Your task to perform on an android device: create a new album in the google photos Image 0: 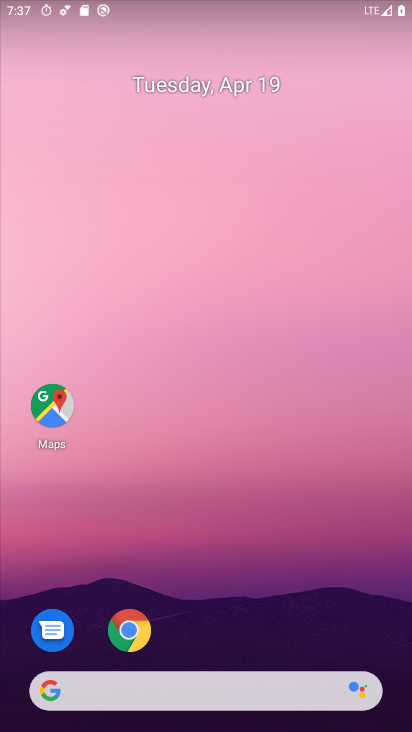
Step 0: drag from (187, 652) to (201, 96)
Your task to perform on an android device: create a new album in the google photos Image 1: 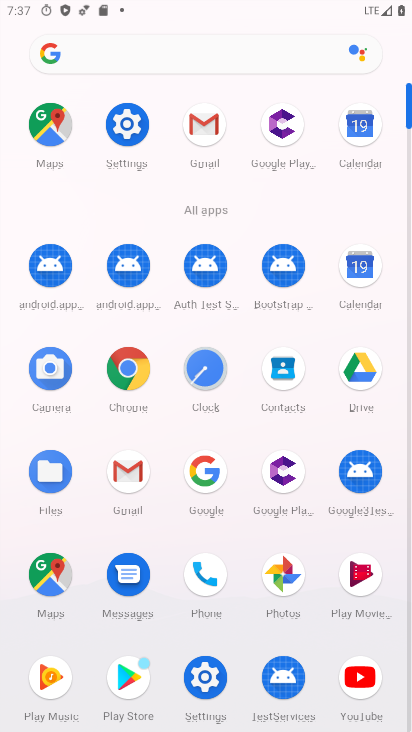
Step 1: click (272, 579)
Your task to perform on an android device: create a new album in the google photos Image 2: 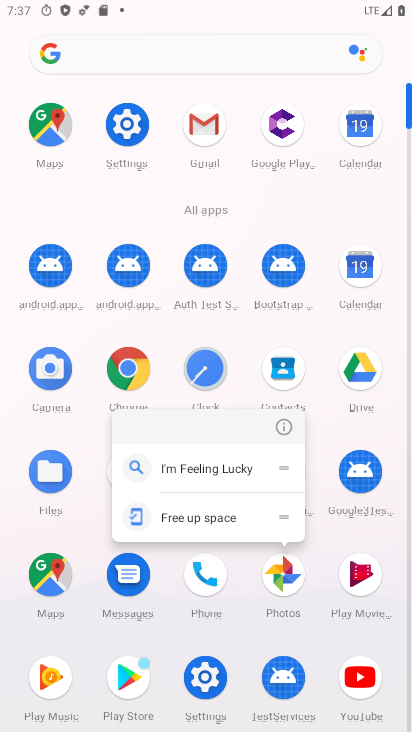
Step 2: click (272, 579)
Your task to perform on an android device: create a new album in the google photos Image 3: 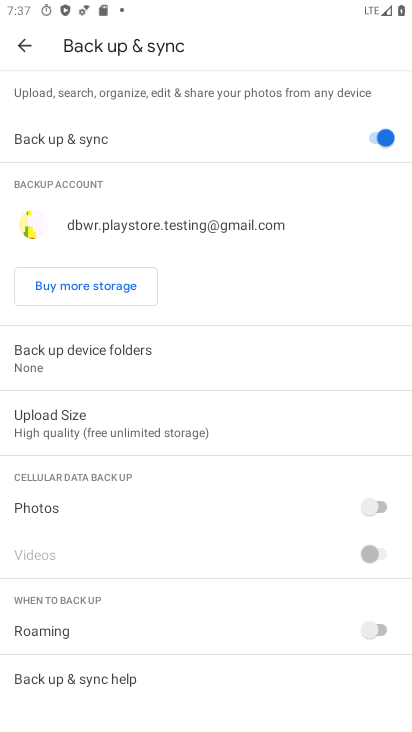
Step 3: click (21, 39)
Your task to perform on an android device: create a new album in the google photos Image 4: 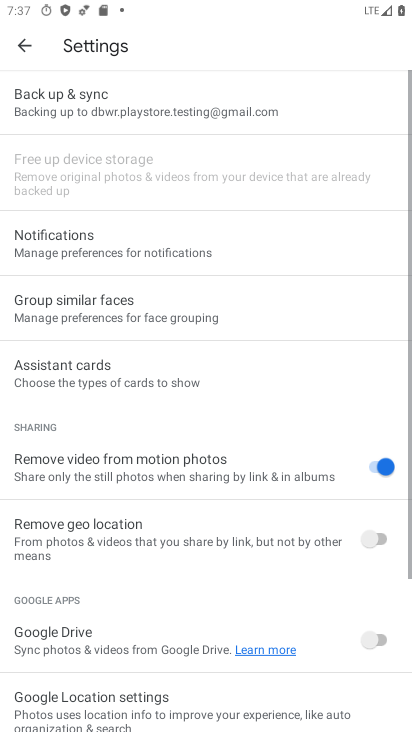
Step 4: click (21, 39)
Your task to perform on an android device: create a new album in the google photos Image 5: 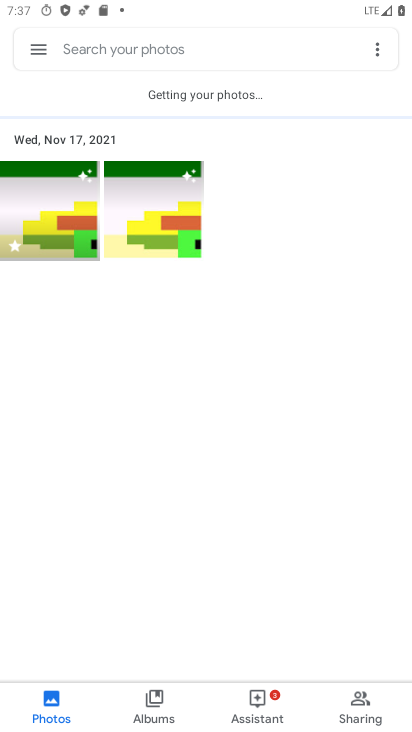
Step 5: click (49, 231)
Your task to perform on an android device: create a new album in the google photos Image 6: 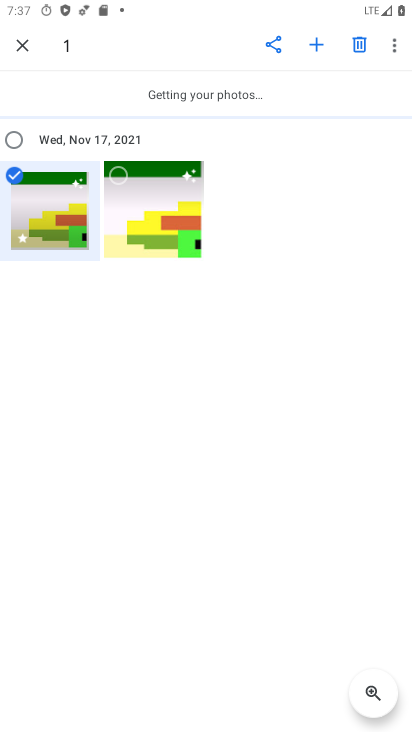
Step 6: click (312, 51)
Your task to perform on an android device: create a new album in the google photos Image 7: 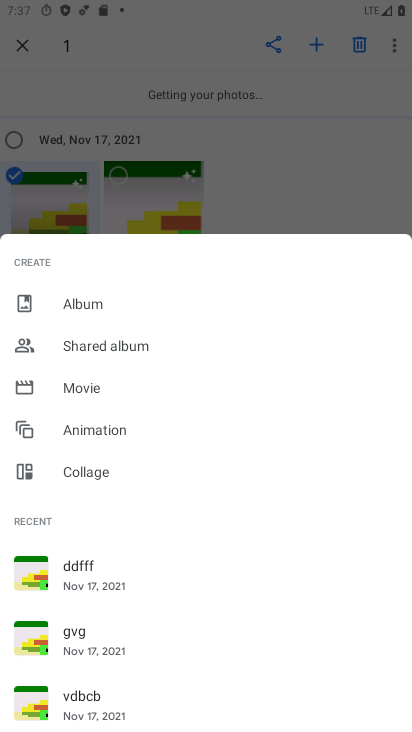
Step 7: click (117, 292)
Your task to perform on an android device: create a new album in the google photos Image 8: 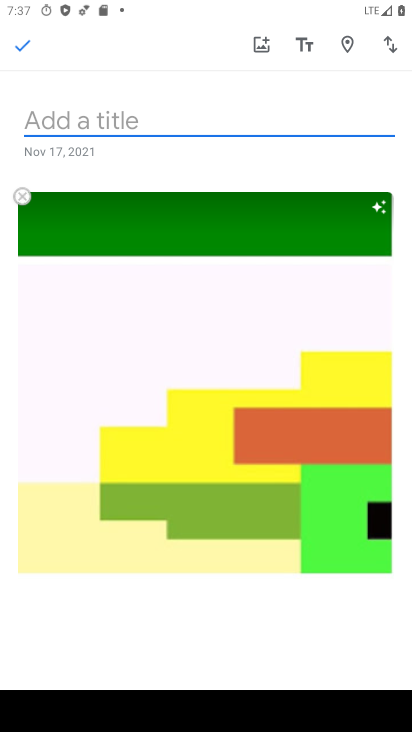
Step 8: type "bn"
Your task to perform on an android device: create a new album in the google photos Image 9: 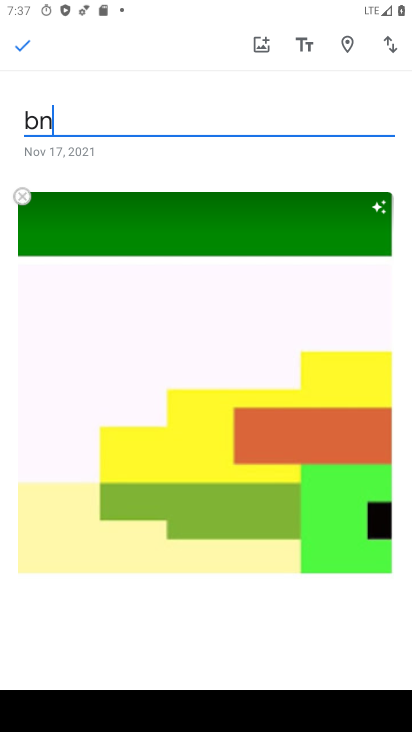
Step 9: type ""
Your task to perform on an android device: create a new album in the google photos Image 10: 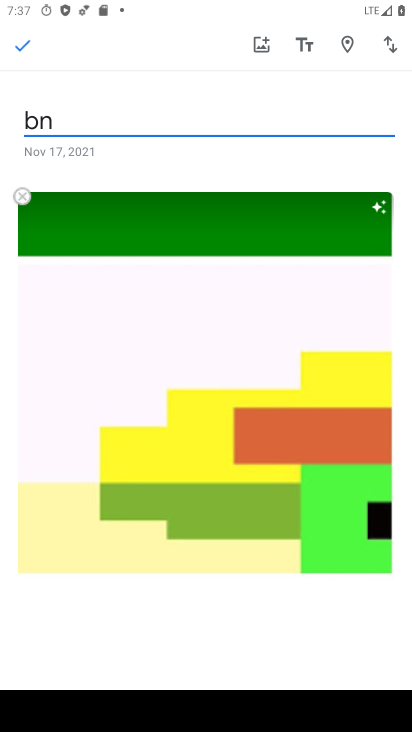
Step 10: click (8, 46)
Your task to perform on an android device: create a new album in the google photos Image 11: 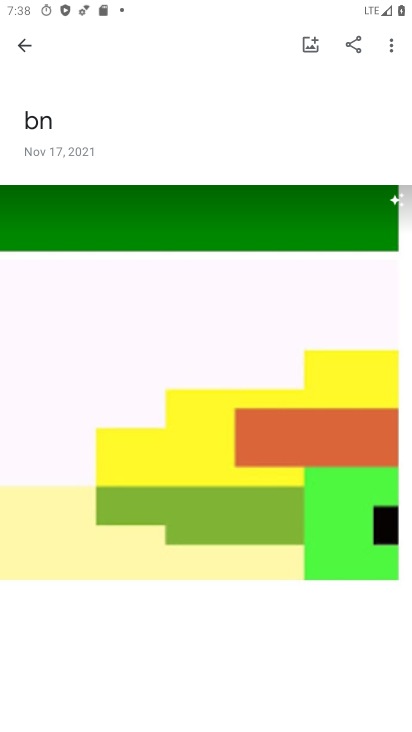
Step 11: task complete